Your task to perform on an android device: Install the Lyft app Image 0: 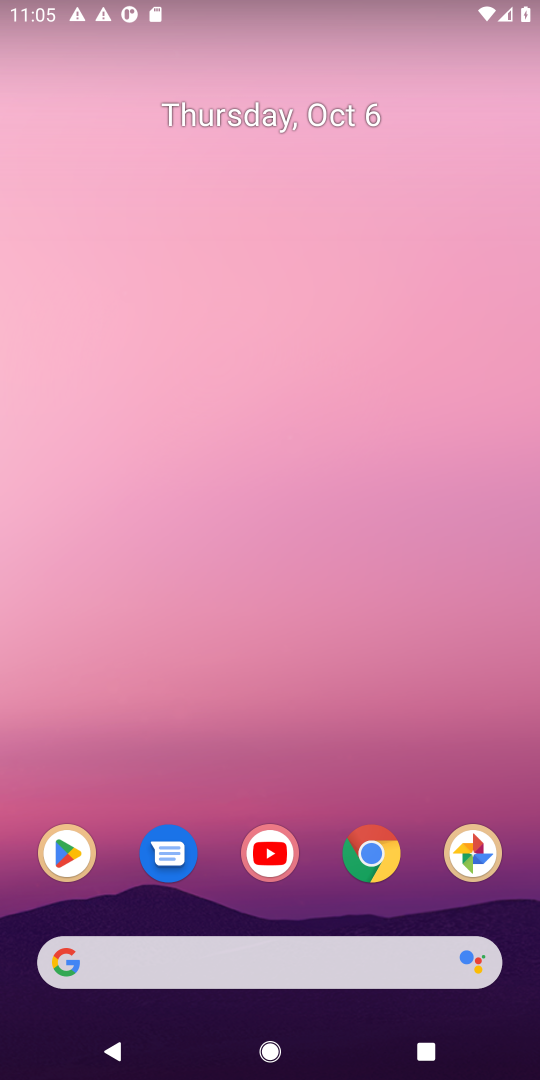
Step 0: drag from (303, 992) to (331, 557)
Your task to perform on an android device: Install the Lyft app Image 1: 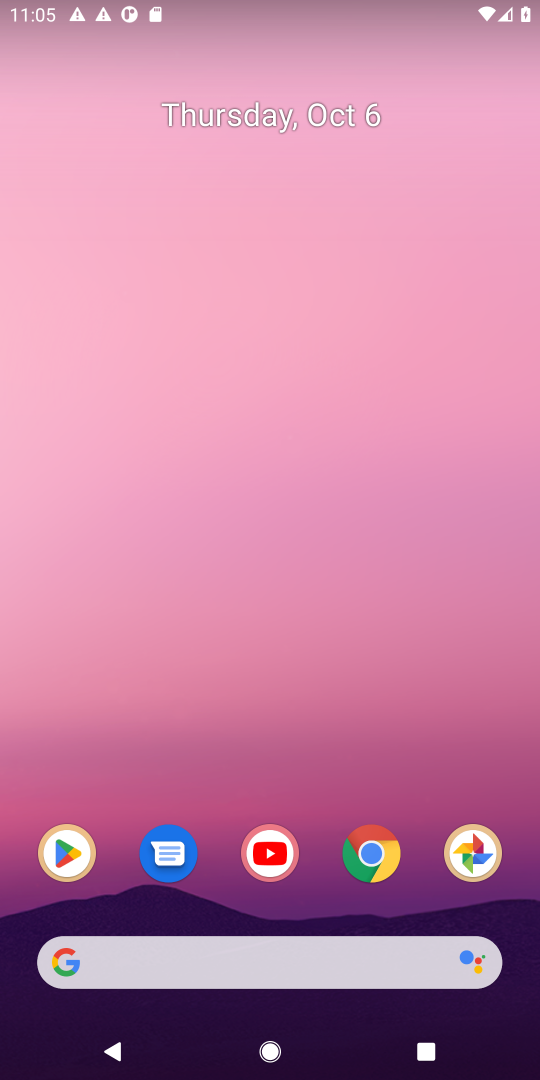
Step 1: drag from (340, 630) to (323, 136)
Your task to perform on an android device: Install the Lyft app Image 2: 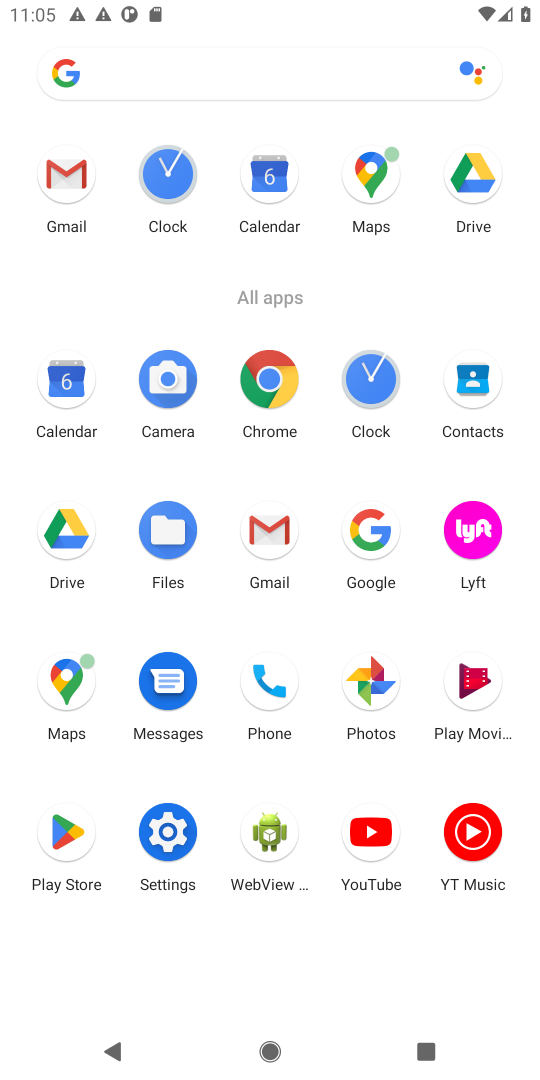
Step 2: click (73, 845)
Your task to perform on an android device: Install the Lyft app Image 3: 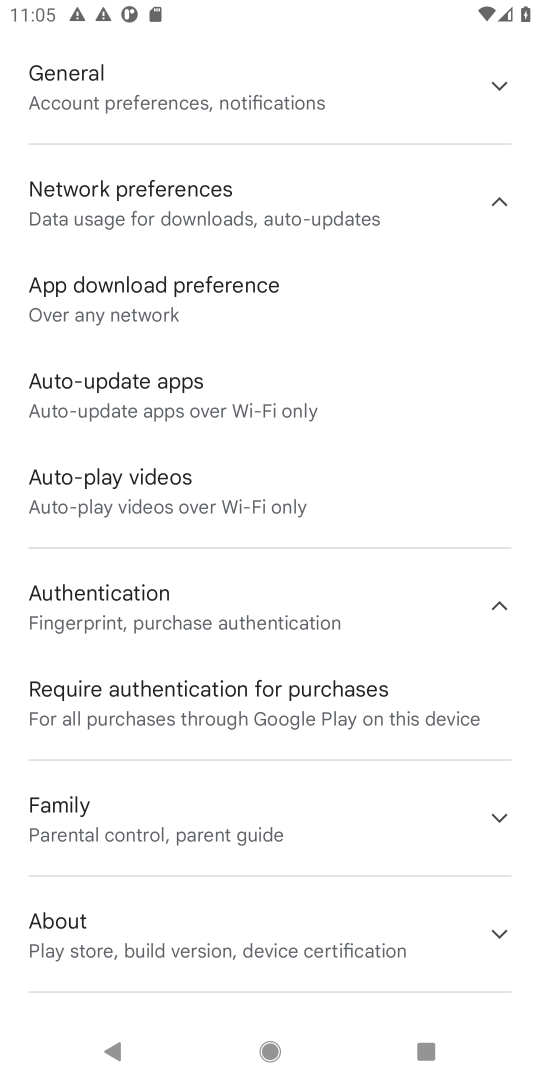
Step 3: press back button
Your task to perform on an android device: Install the Lyft app Image 4: 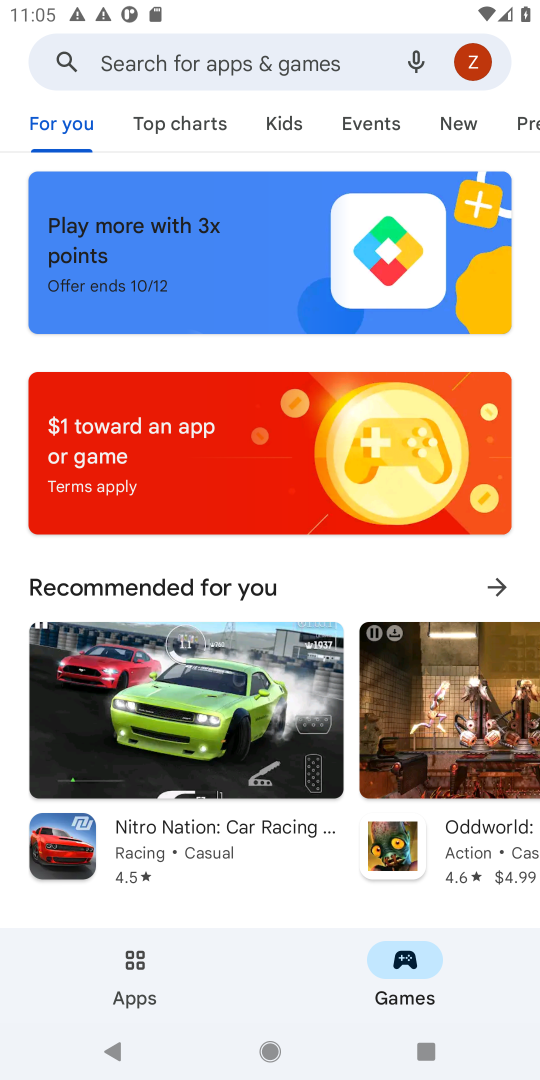
Step 4: click (148, 64)
Your task to perform on an android device: Install the Lyft app Image 5: 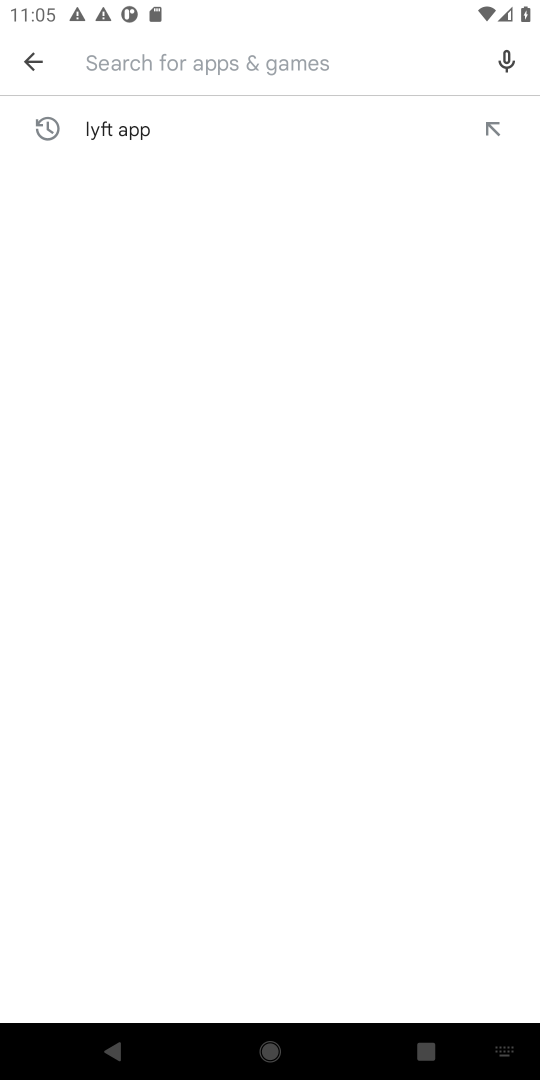
Step 5: click (118, 128)
Your task to perform on an android device: Install the Lyft app Image 6: 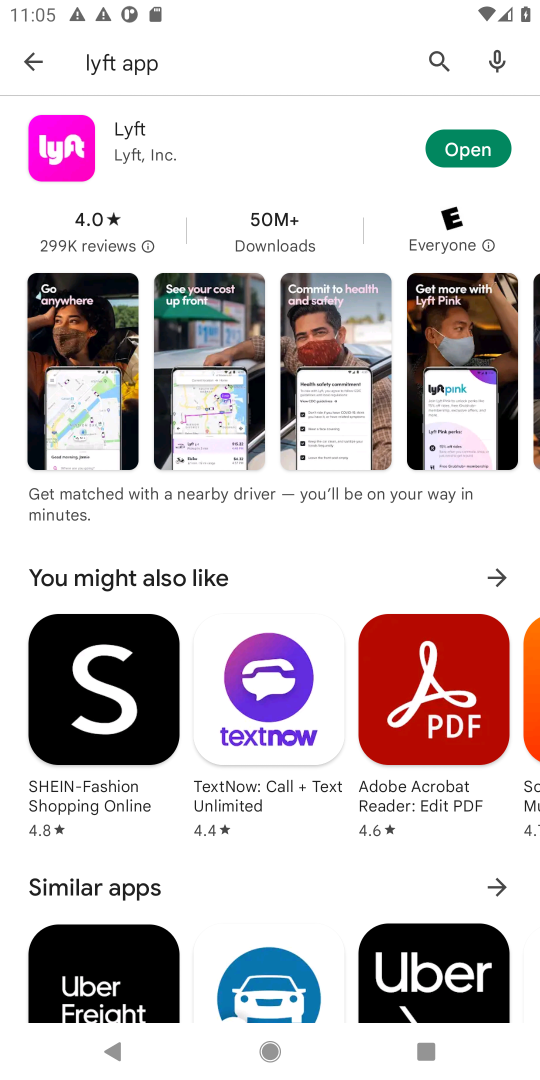
Step 6: click (36, 63)
Your task to perform on an android device: Install the Lyft app Image 7: 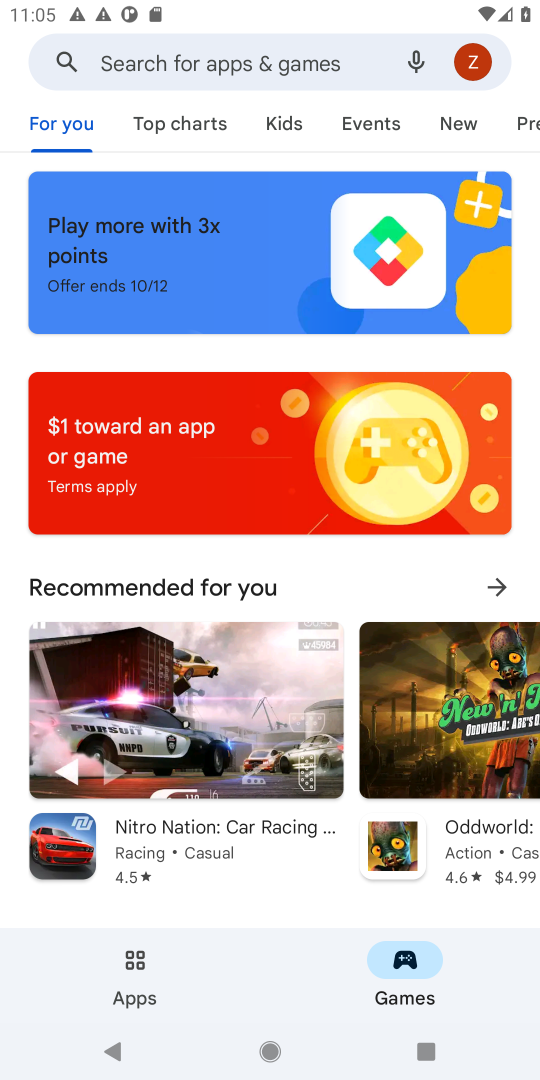
Step 7: click (36, 63)
Your task to perform on an android device: Install the Lyft app Image 8: 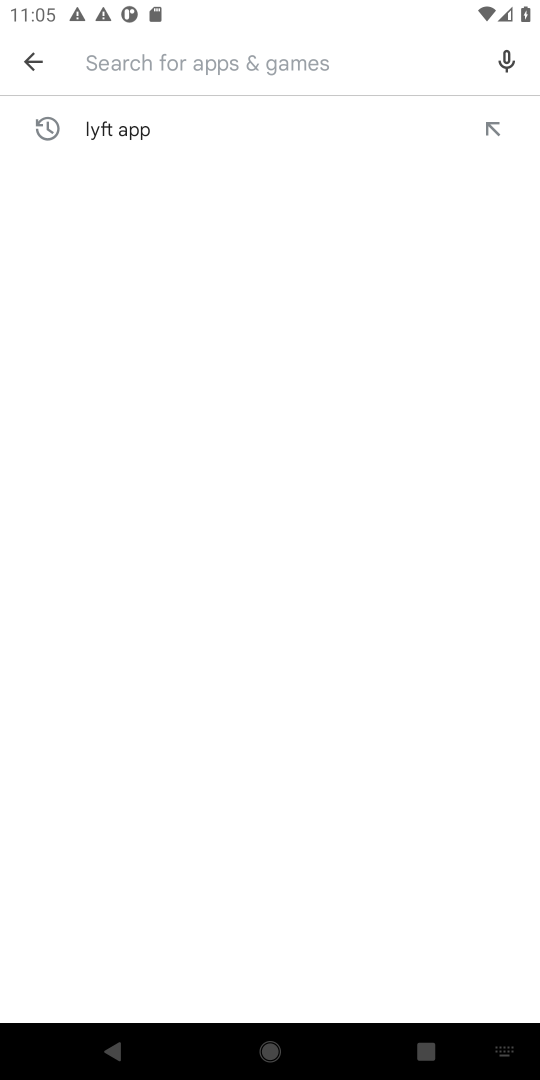
Step 8: click (134, 63)
Your task to perform on an android device: Install the Lyft app Image 9: 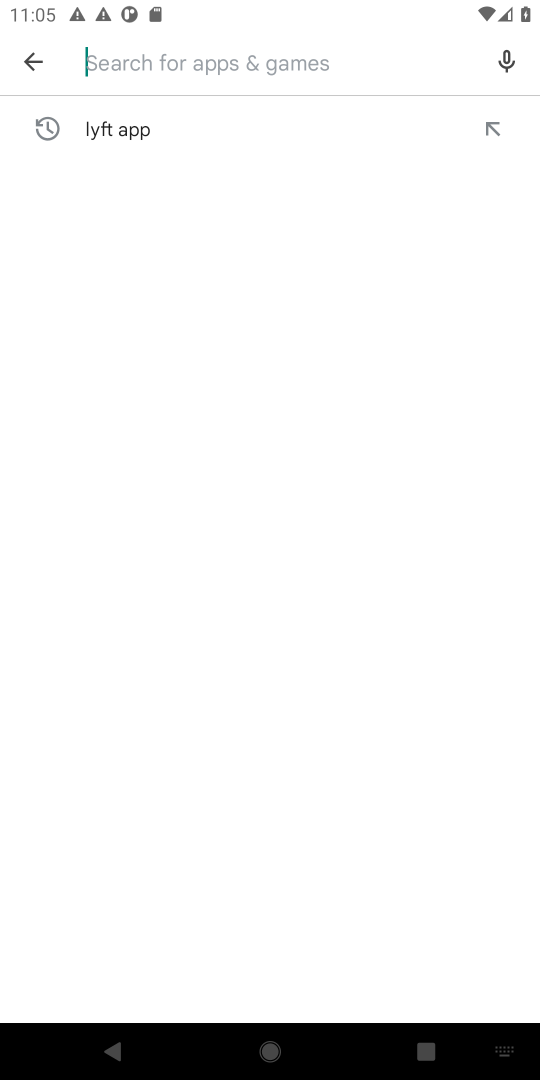
Step 9: click (118, 113)
Your task to perform on an android device: Install the Lyft app Image 10: 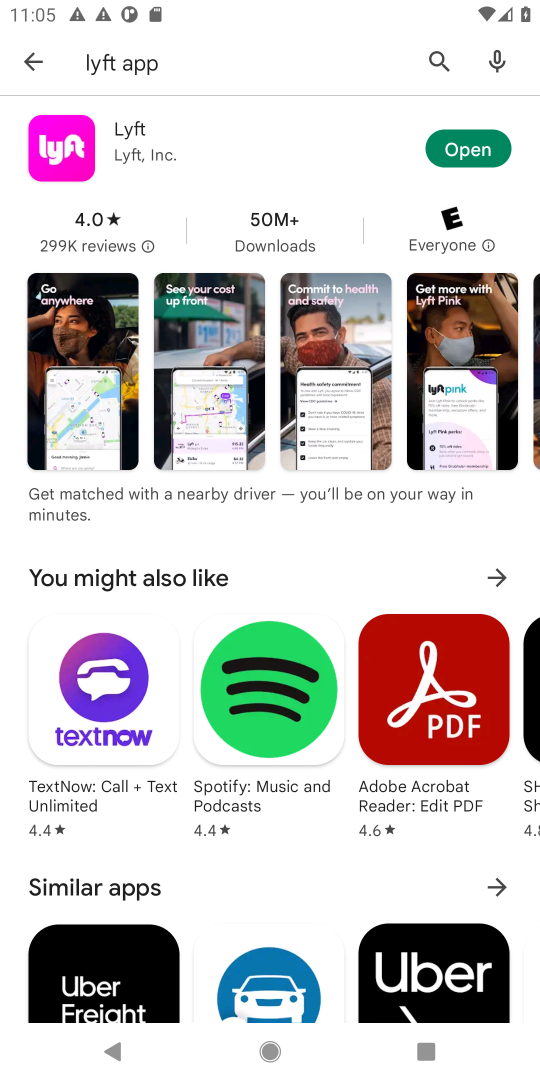
Step 10: click (107, 138)
Your task to perform on an android device: Install the Lyft app Image 11: 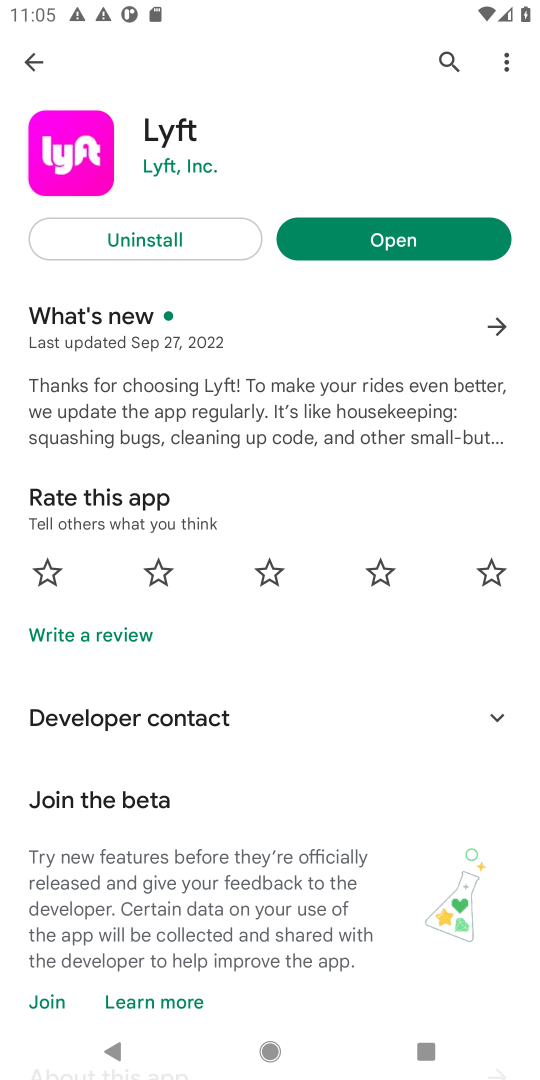
Step 11: click (200, 242)
Your task to perform on an android device: Install the Lyft app Image 12: 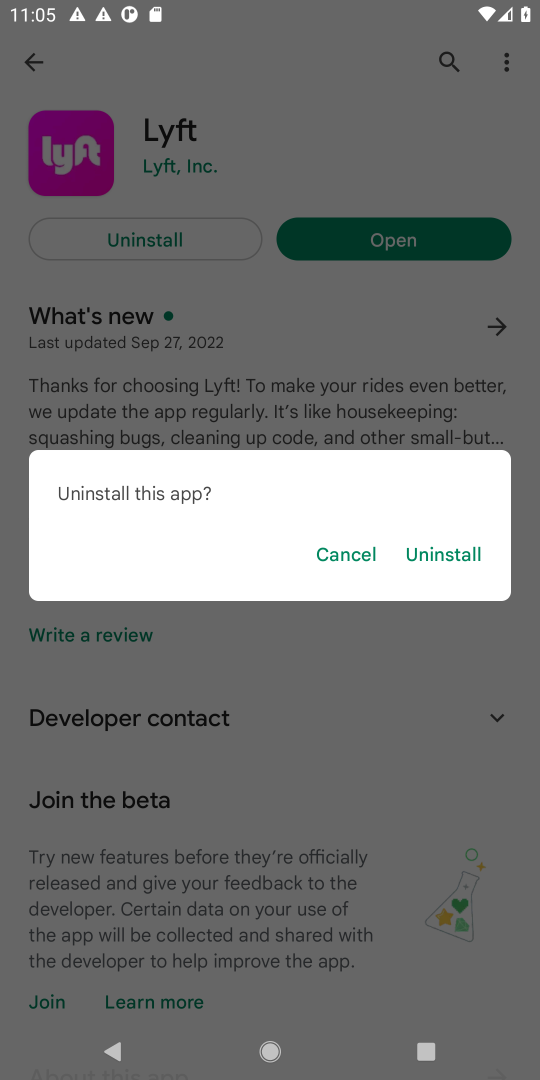
Step 12: click (438, 555)
Your task to perform on an android device: Install the Lyft app Image 13: 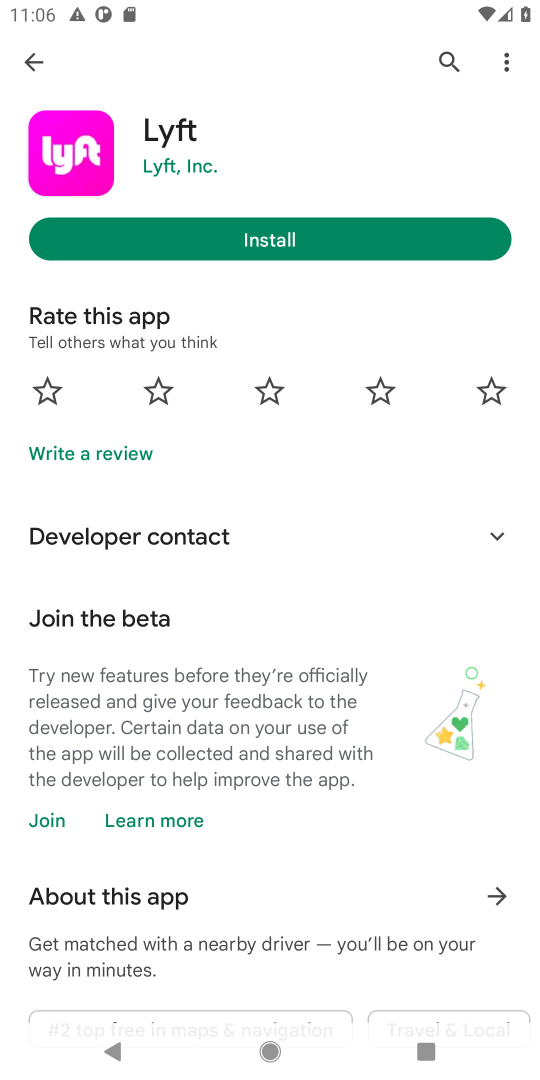
Step 13: click (301, 248)
Your task to perform on an android device: Install the Lyft app Image 14: 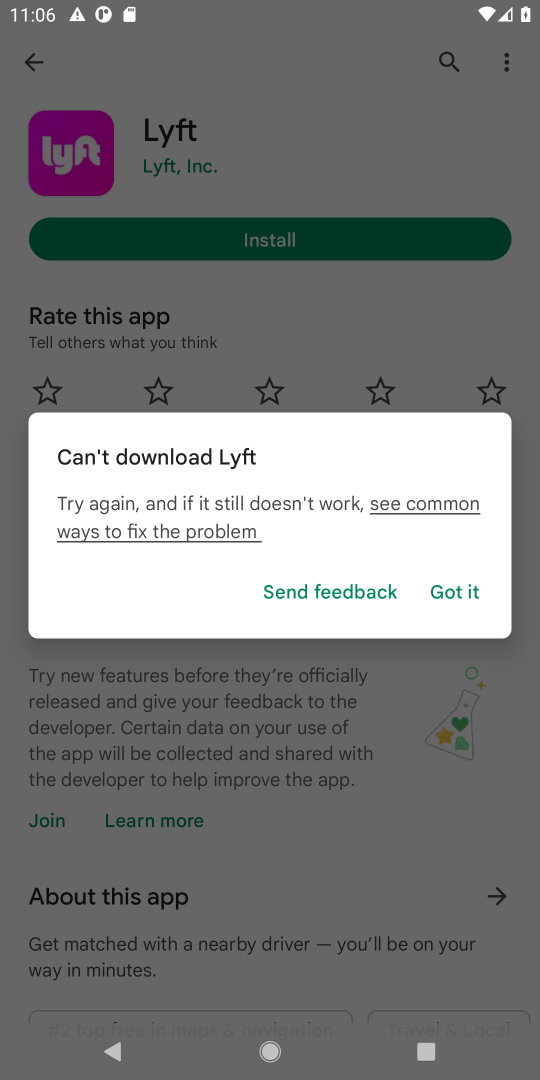
Step 14: click (442, 600)
Your task to perform on an android device: Install the Lyft app Image 15: 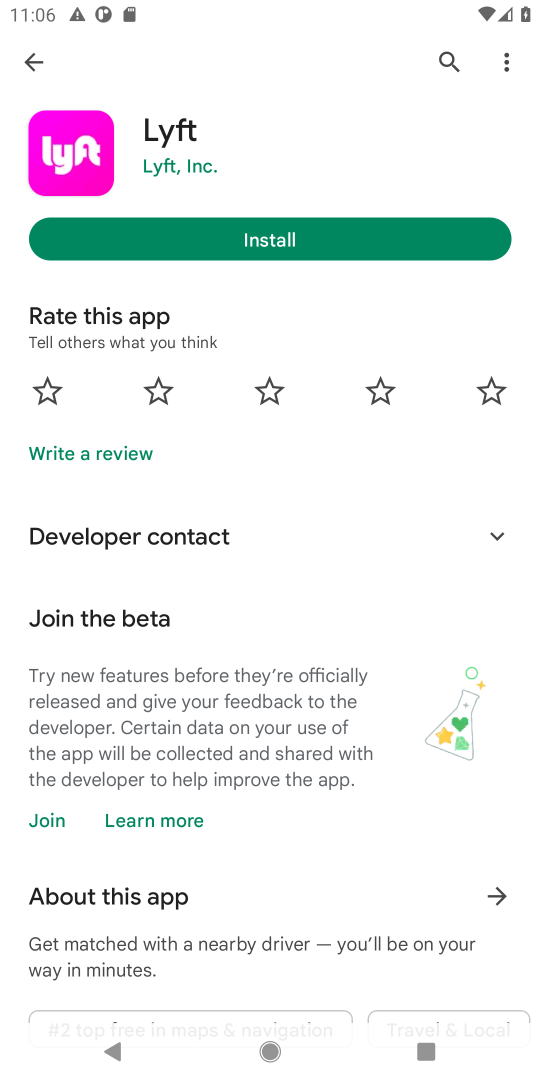
Step 15: click (447, 592)
Your task to perform on an android device: Install the Lyft app Image 16: 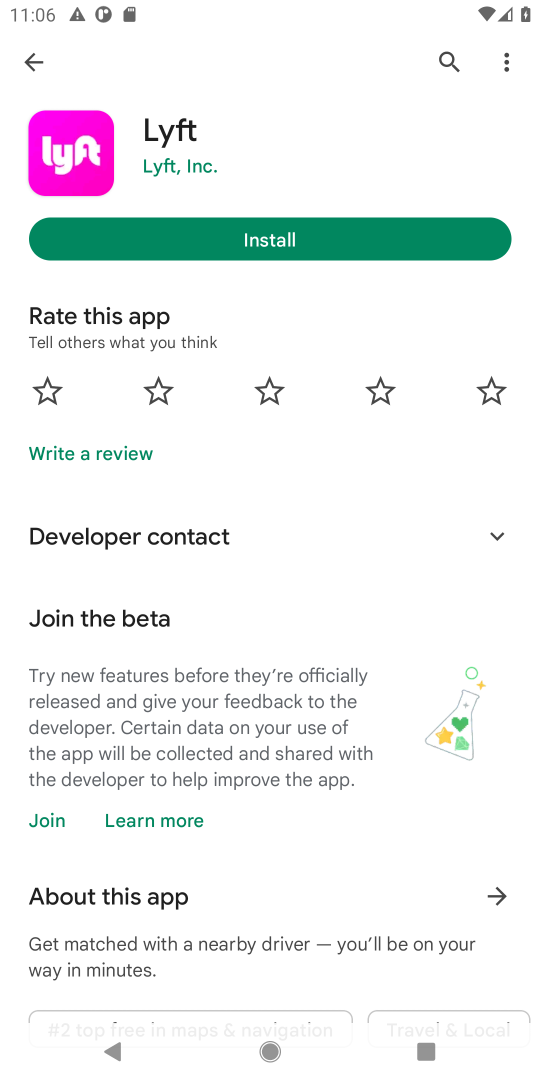
Step 16: click (292, 247)
Your task to perform on an android device: Install the Lyft app Image 17: 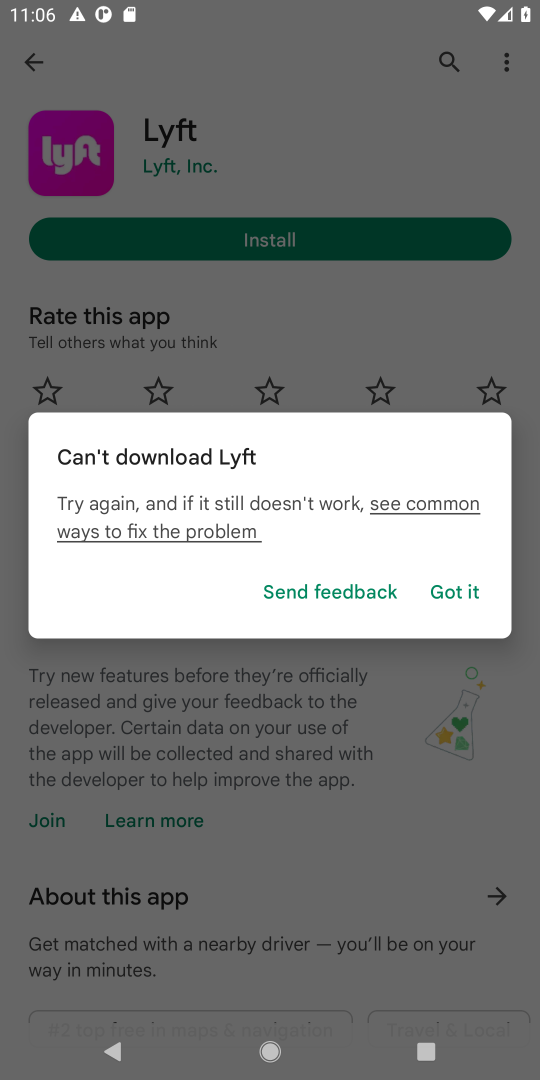
Step 17: click (384, 582)
Your task to perform on an android device: Install the Lyft app Image 18: 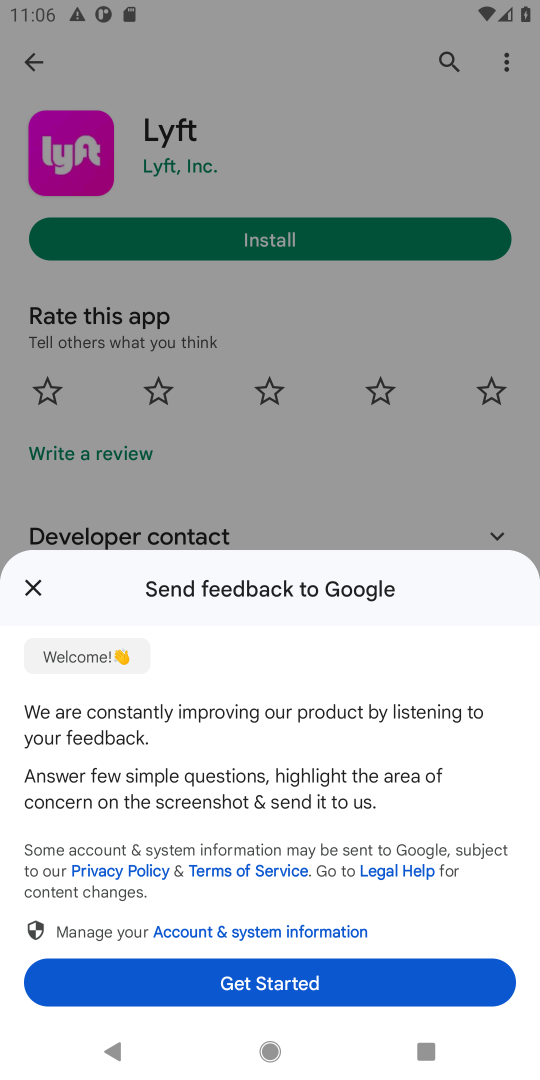
Step 18: click (347, 989)
Your task to perform on an android device: Install the Lyft app Image 19: 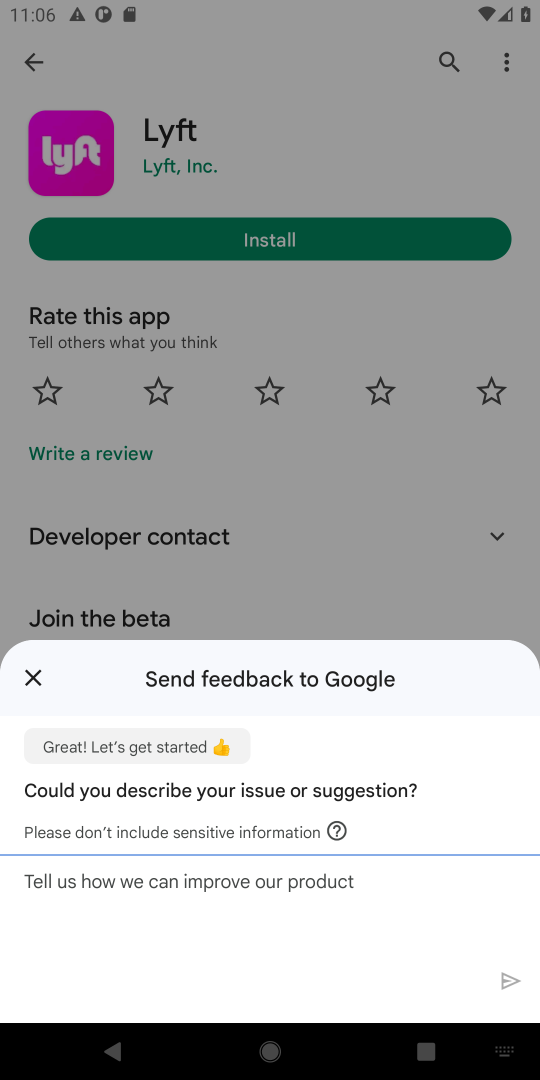
Step 19: type "sdfg"
Your task to perform on an android device: Install the Lyft app Image 20: 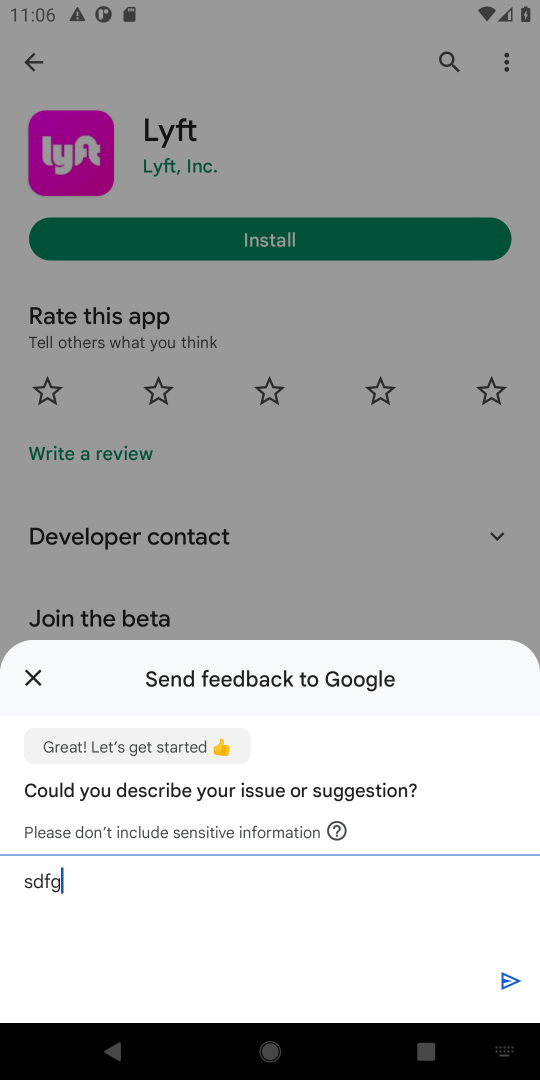
Step 20: type ""
Your task to perform on an android device: Install the Lyft app Image 21: 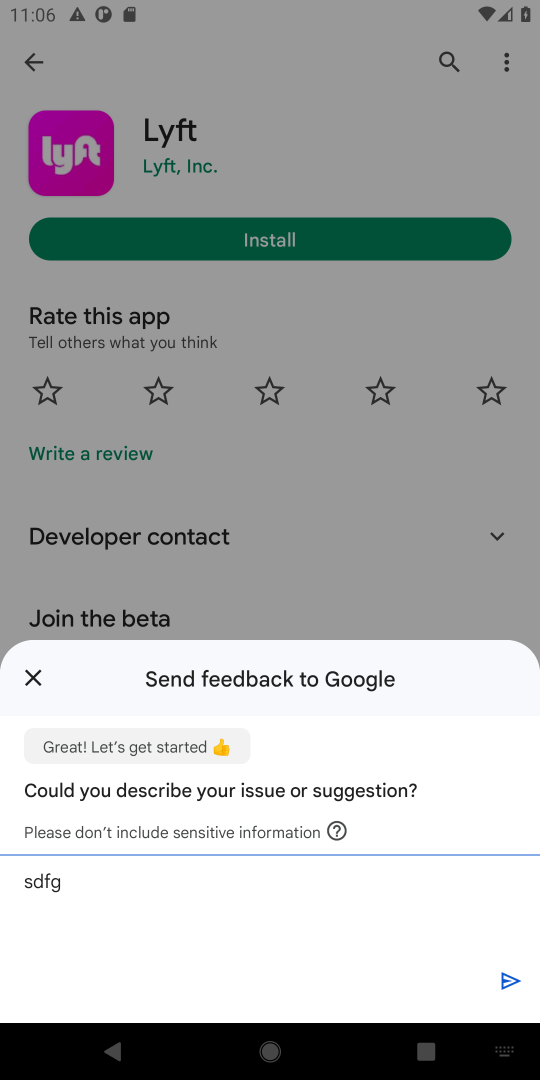
Step 21: click (520, 985)
Your task to perform on an android device: Install the Lyft app Image 22: 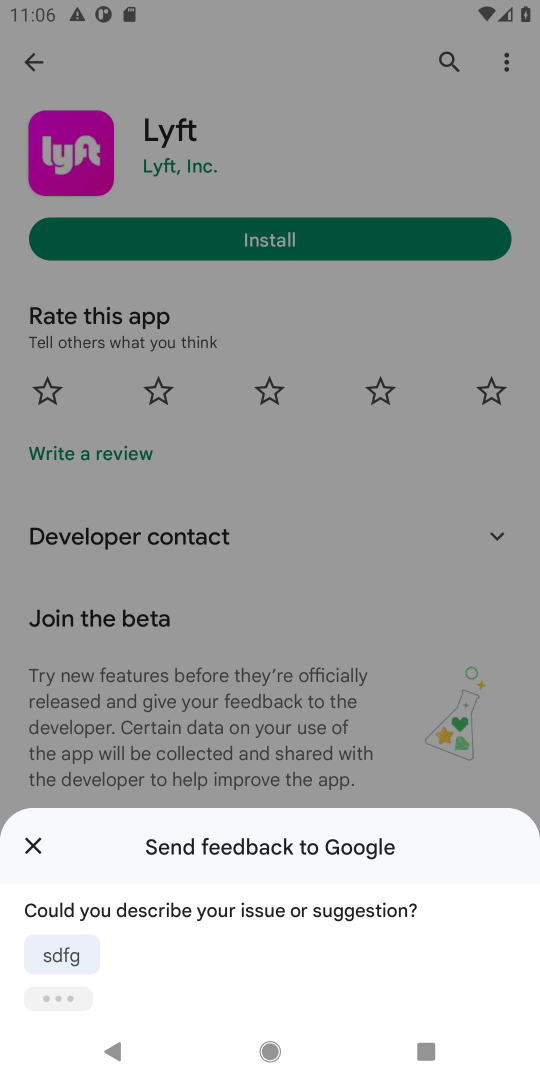
Step 22: click (518, 985)
Your task to perform on an android device: Install the Lyft app Image 23: 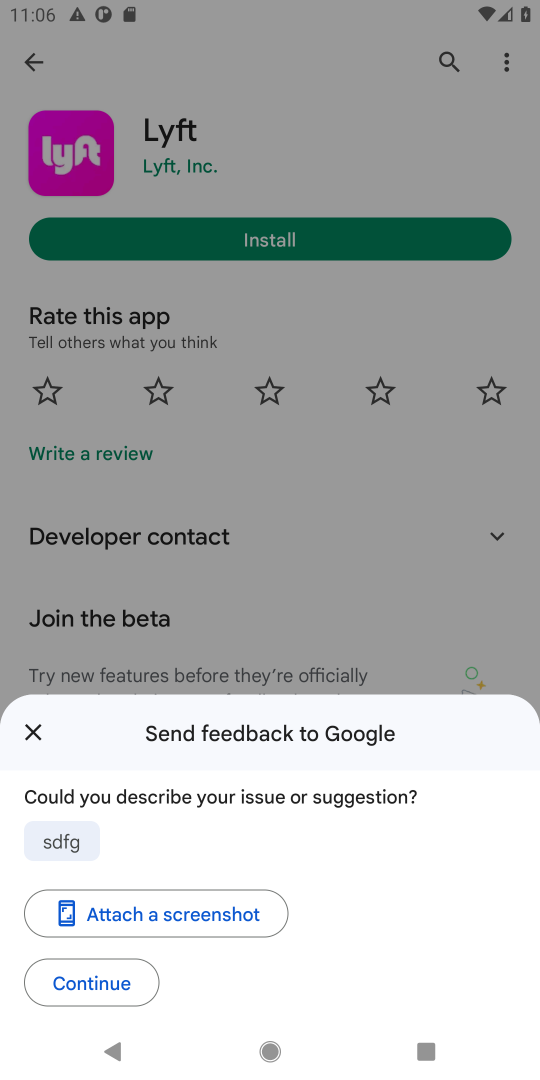
Step 23: click (86, 972)
Your task to perform on an android device: Install the Lyft app Image 24: 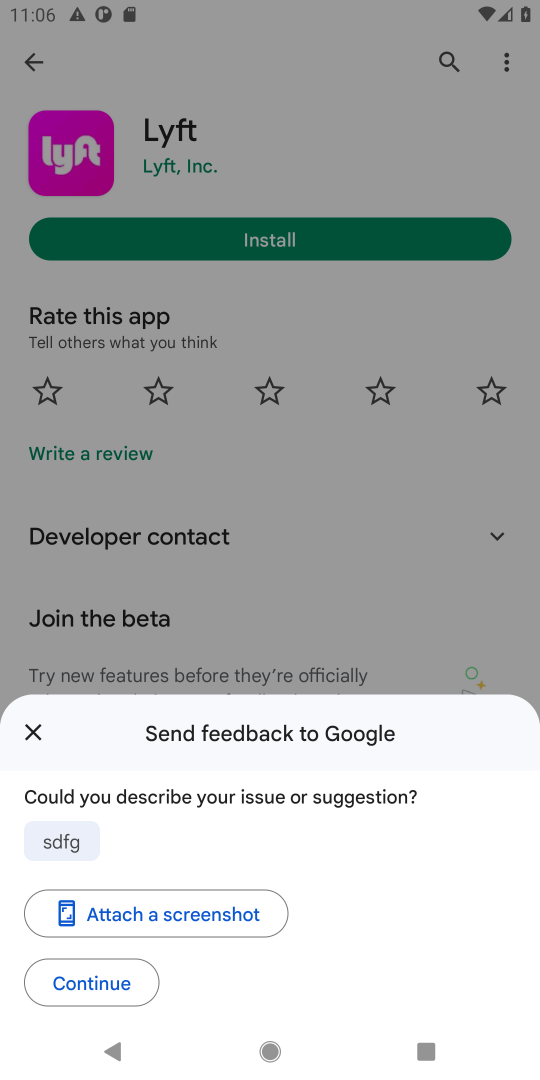
Step 24: click (94, 983)
Your task to perform on an android device: Install the Lyft app Image 25: 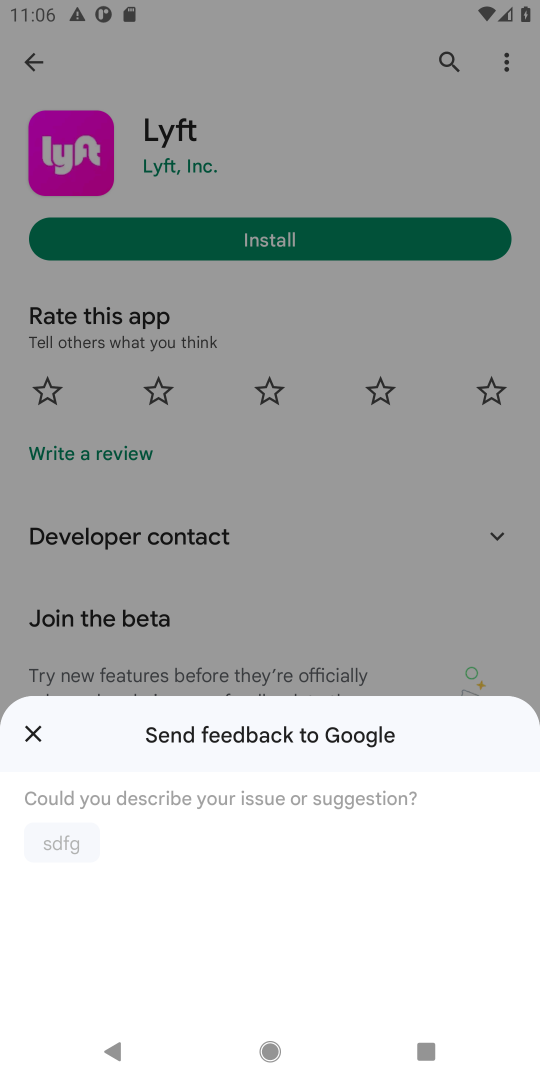
Step 25: click (260, 442)
Your task to perform on an android device: Install the Lyft app Image 26: 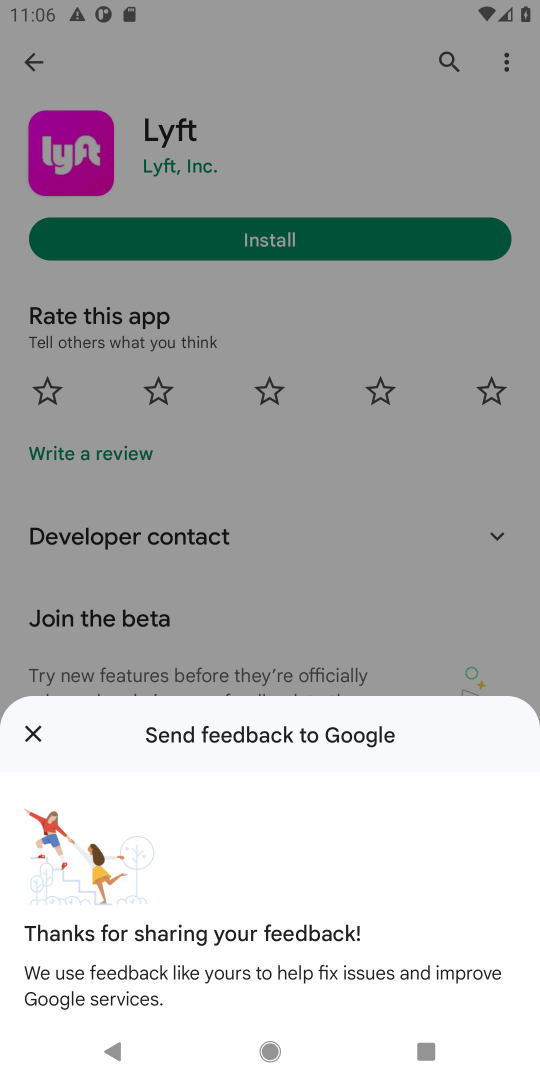
Step 26: click (31, 742)
Your task to perform on an android device: Install the Lyft app Image 27: 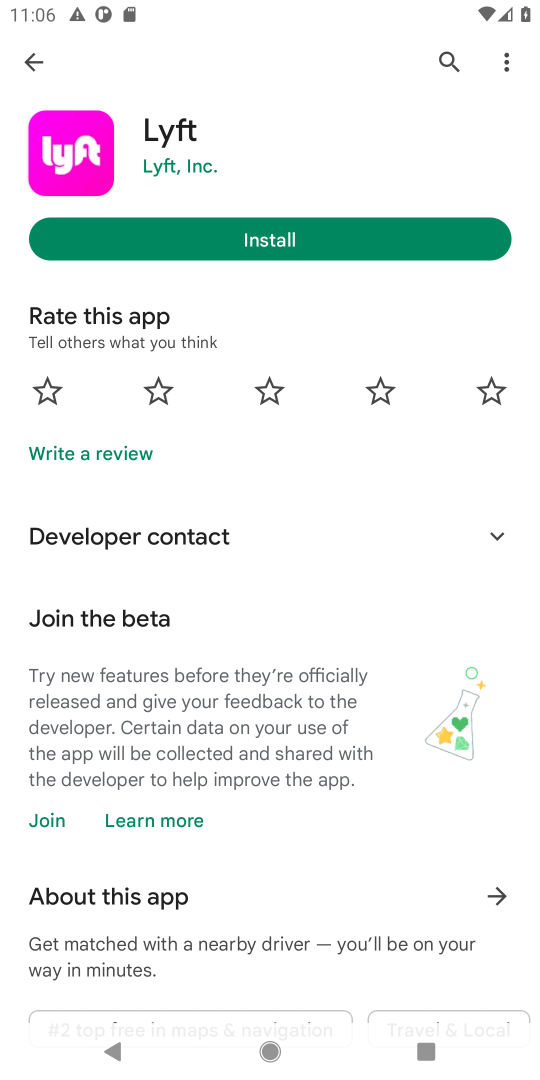
Step 27: click (28, 733)
Your task to perform on an android device: Install the Lyft app Image 28: 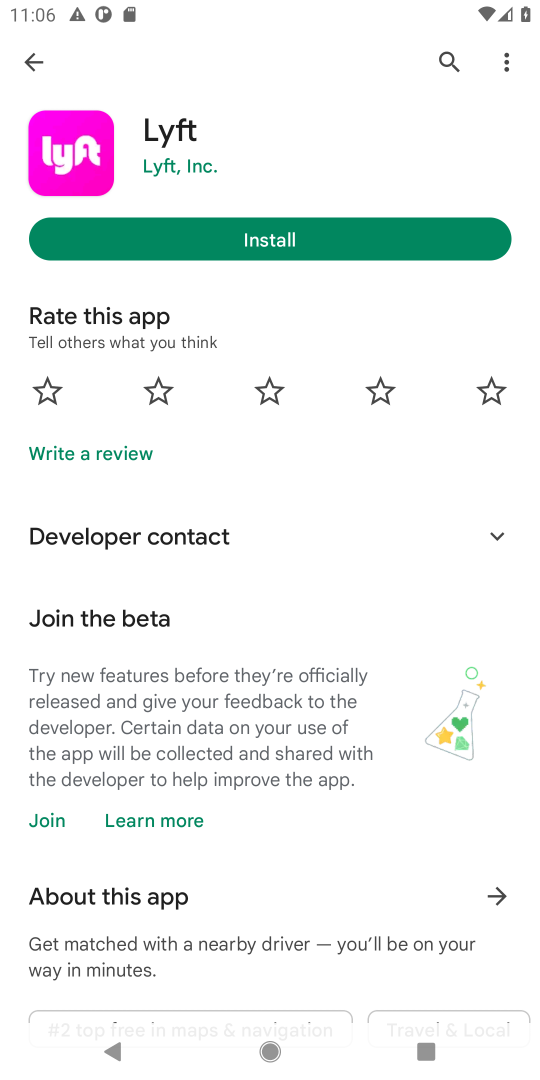
Step 28: click (31, 71)
Your task to perform on an android device: Install the Lyft app Image 29: 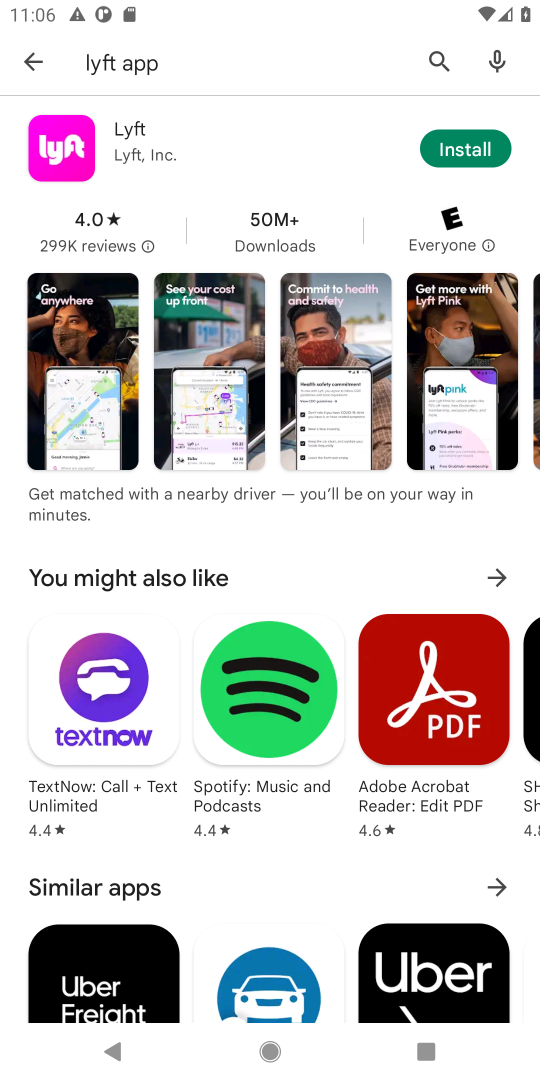
Step 29: click (466, 147)
Your task to perform on an android device: Install the Lyft app Image 30: 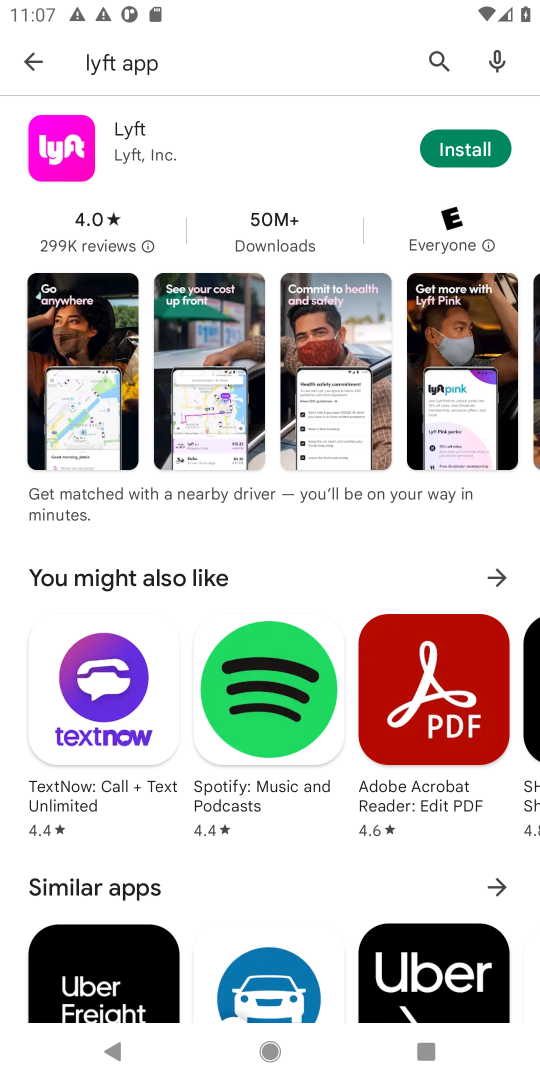
Step 30: click (298, 148)
Your task to perform on an android device: Install the Lyft app Image 31: 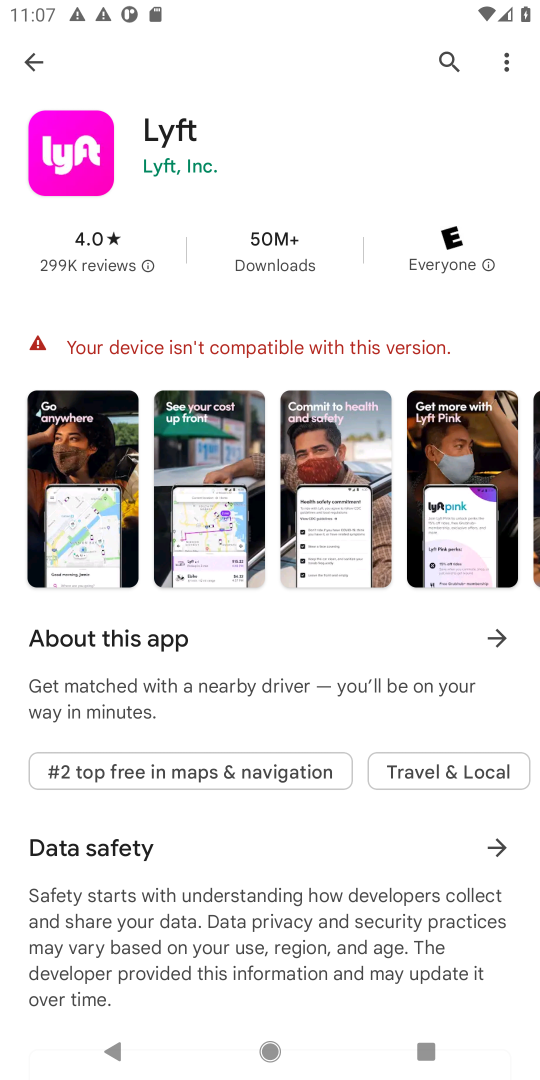
Step 31: drag from (274, 613) to (352, 200)
Your task to perform on an android device: Install the Lyft app Image 32: 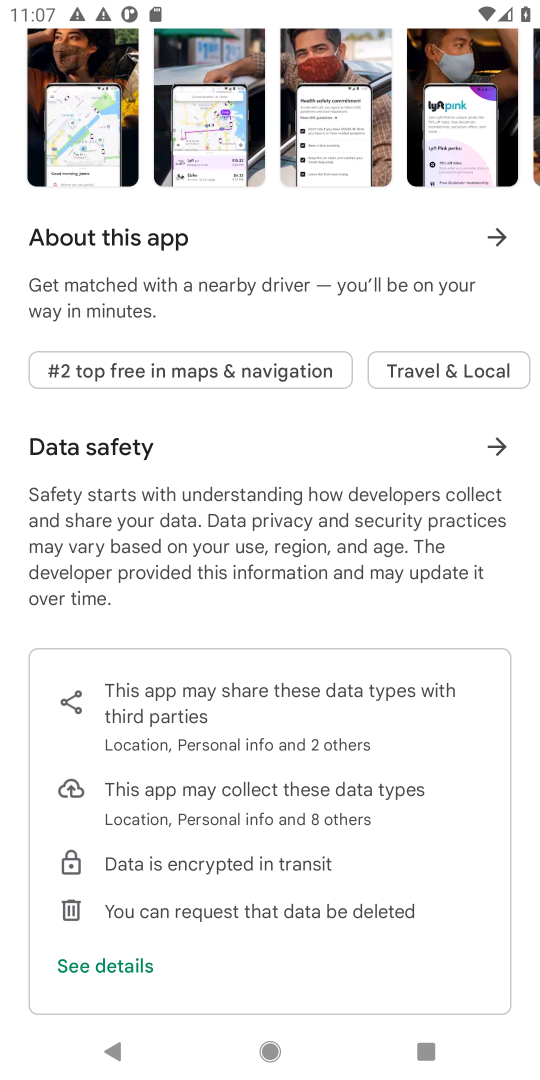
Step 32: drag from (350, 644) to (350, 365)
Your task to perform on an android device: Install the Lyft app Image 33: 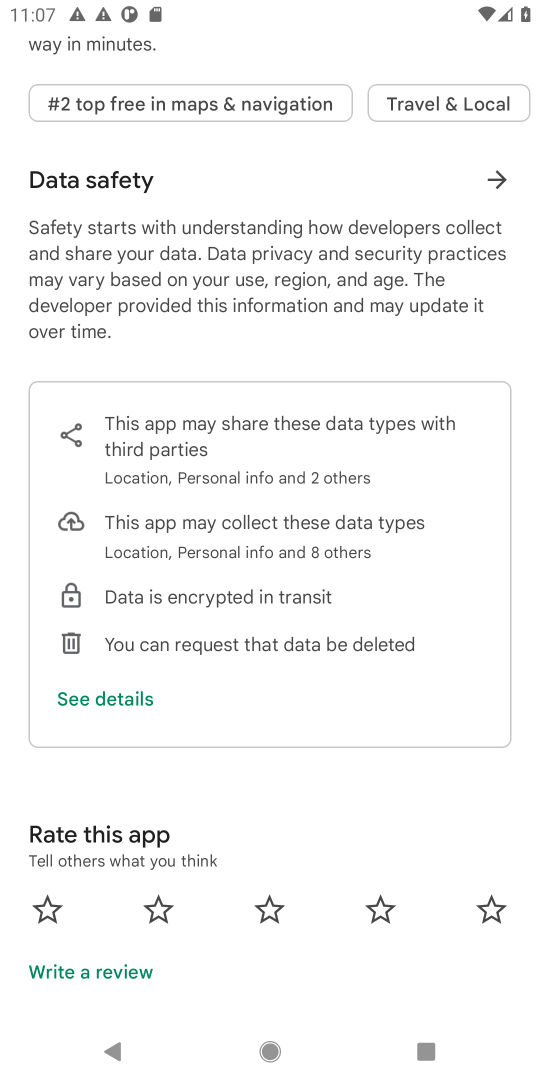
Step 33: drag from (352, 500) to (301, 1048)
Your task to perform on an android device: Install the Lyft app Image 34: 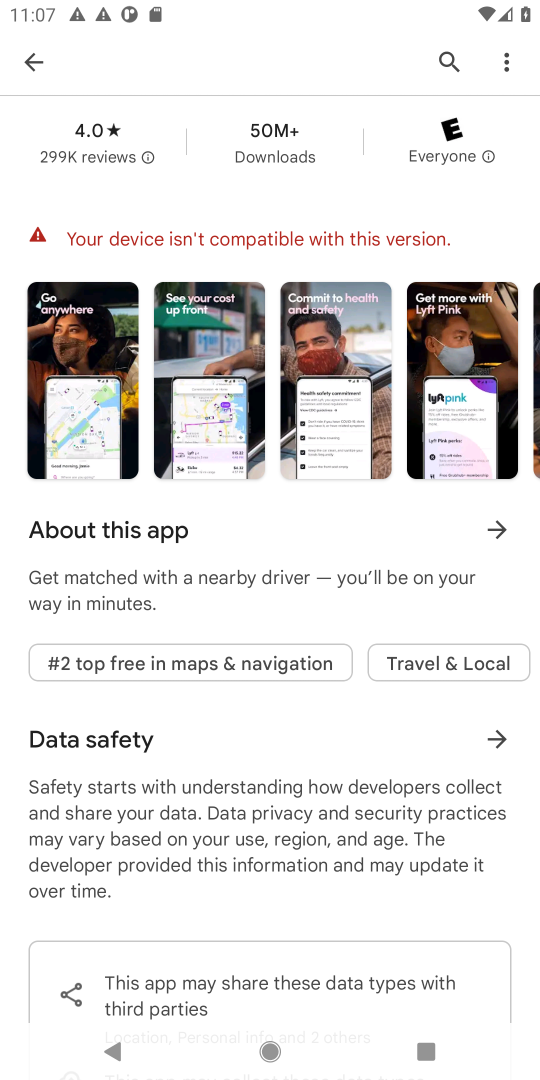
Step 34: click (27, 49)
Your task to perform on an android device: Install the Lyft app Image 35: 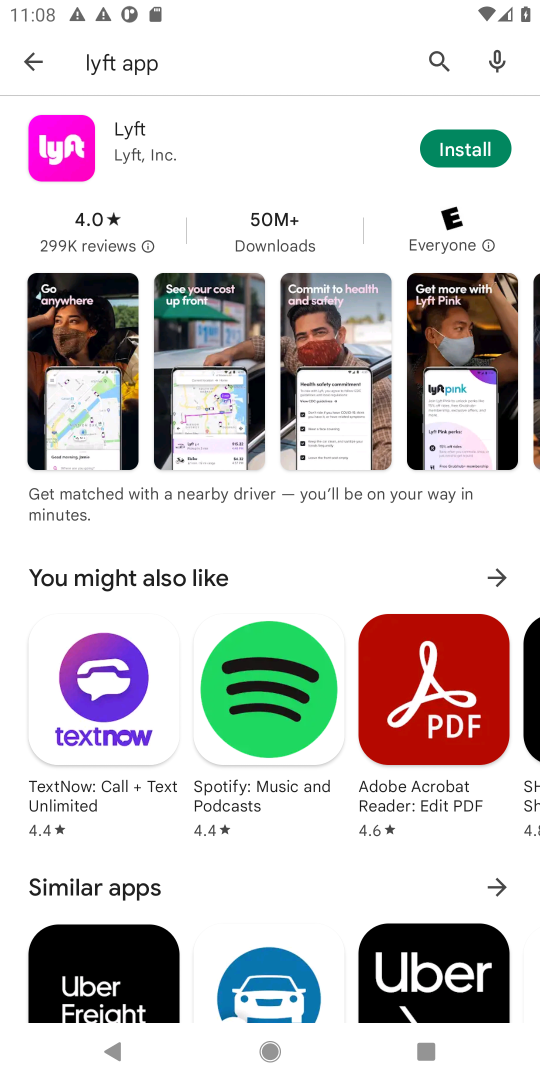
Step 35: click (23, 71)
Your task to perform on an android device: Install the Lyft app Image 36: 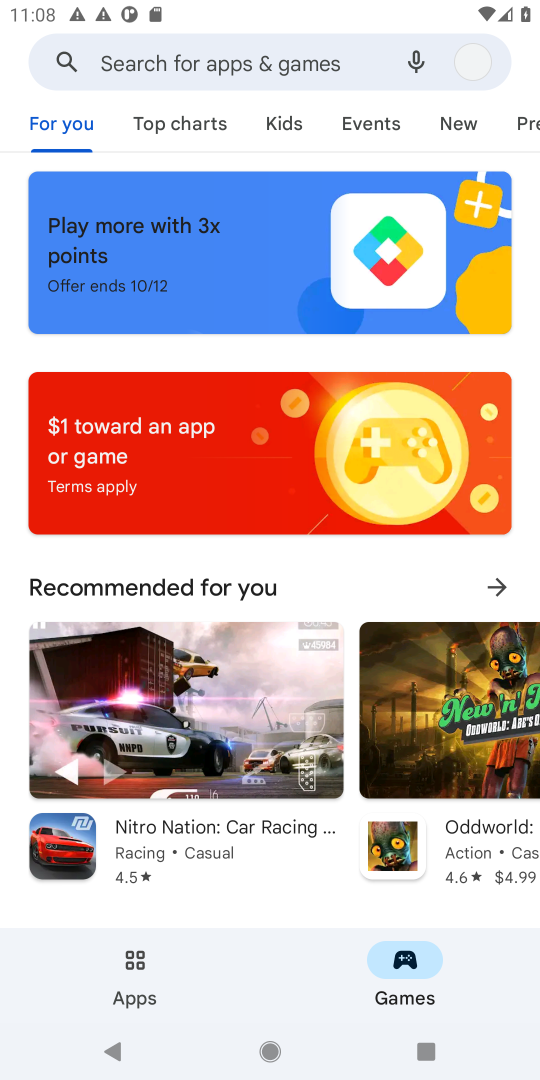
Step 36: click (32, 67)
Your task to perform on an android device: Install the Lyft app Image 37: 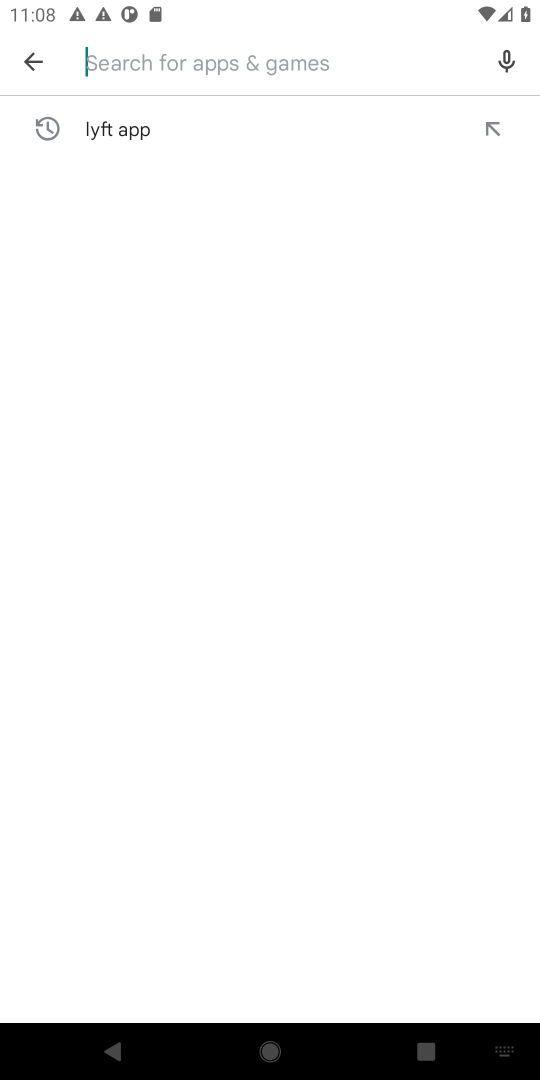
Step 37: click (32, 67)
Your task to perform on an android device: Install the Lyft app Image 38: 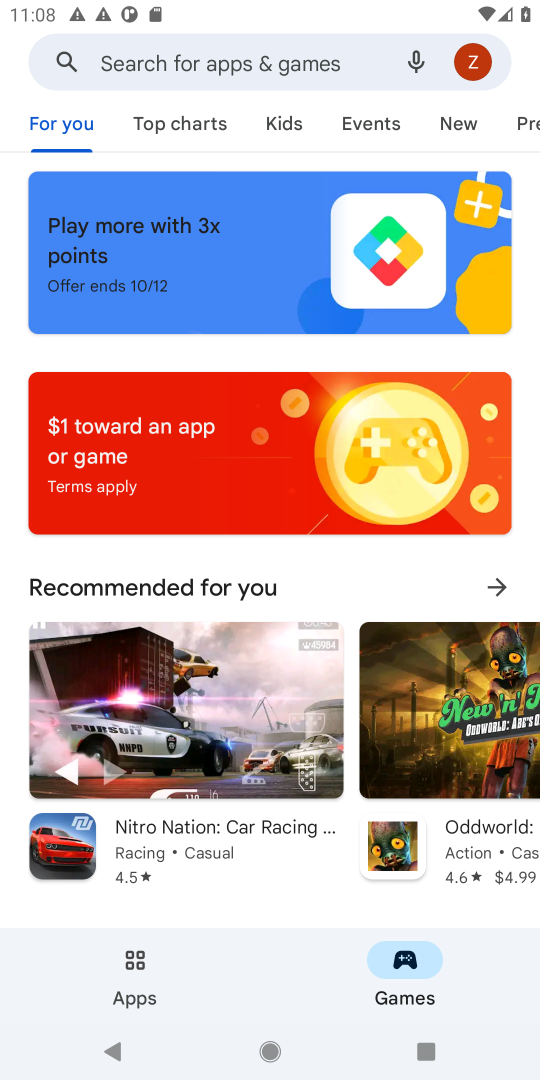
Step 38: click (164, 68)
Your task to perform on an android device: Install the Lyft app Image 39: 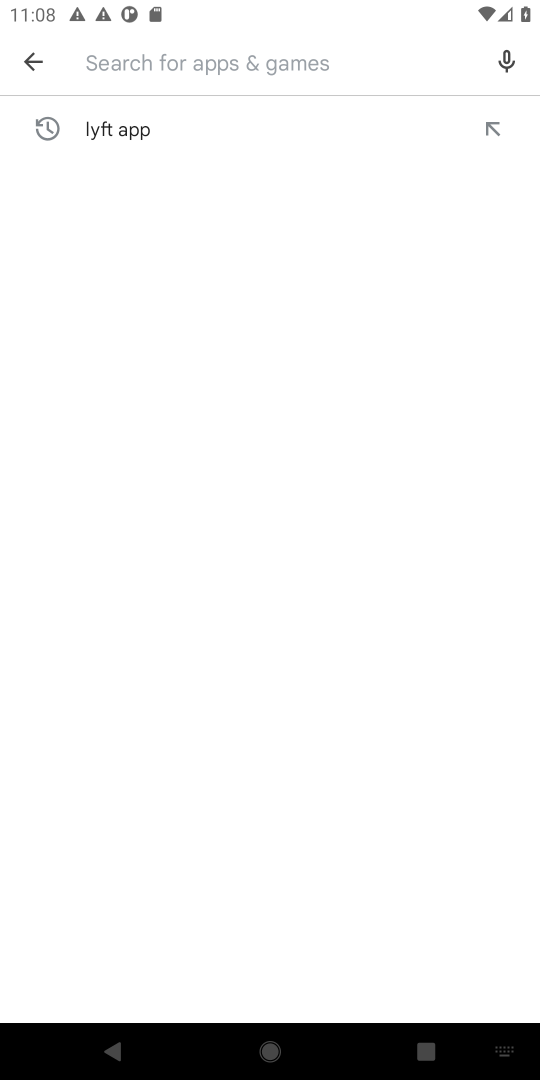
Step 39: click (125, 125)
Your task to perform on an android device: Install the Lyft app Image 40: 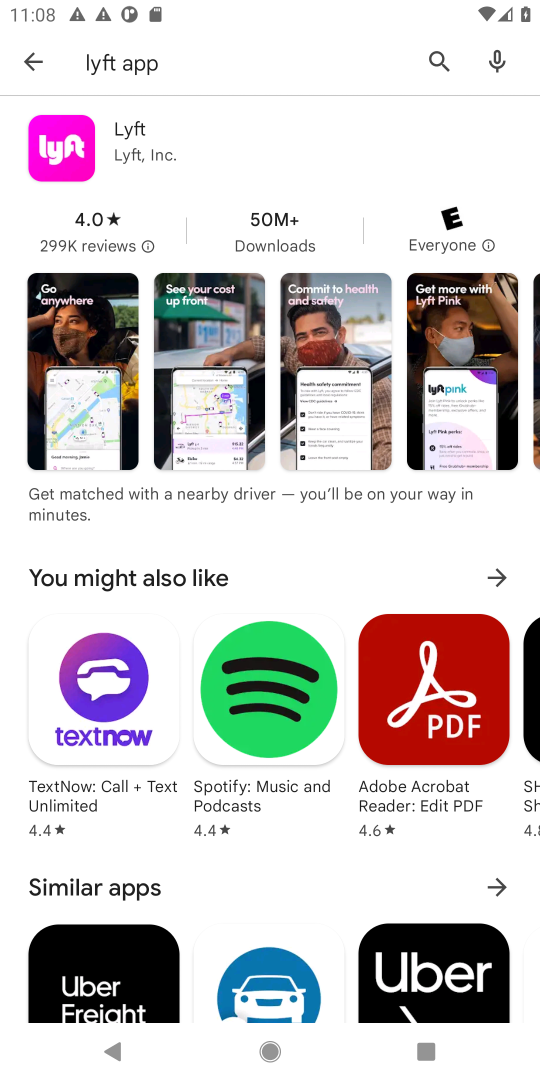
Step 40: click (177, 141)
Your task to perform on an android device: Install the Lyft app Image 41: 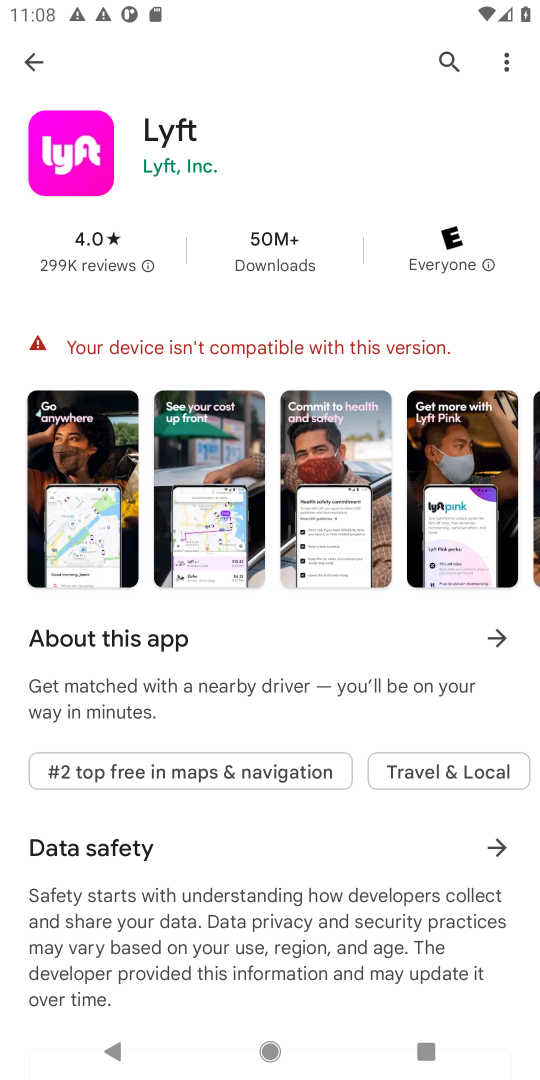
Step 41: task complete